Your task to perform on an android device: Open ESPN.com Image 0: 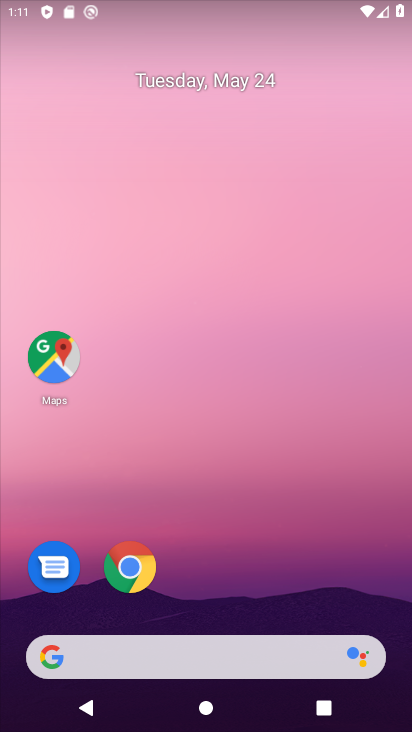
Step 0: click (134, 559)
Your task to perform on an android device: Open ESPN.com Image 1: 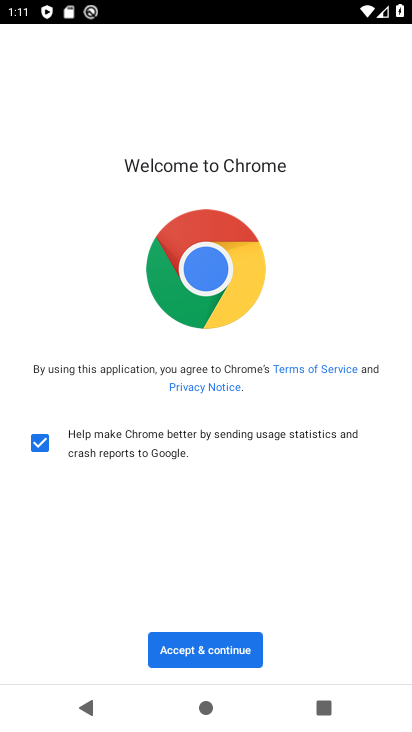
Step 1: click (230, 644)
Your task to perform on an android device: Open ESPN.com Image 2: 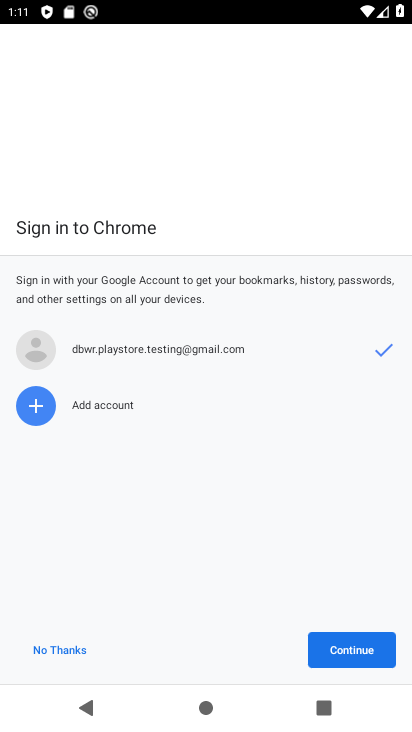
Step 2: click (345, 651)
Your task to perform on an android device: Open ESPN.com Image 3: 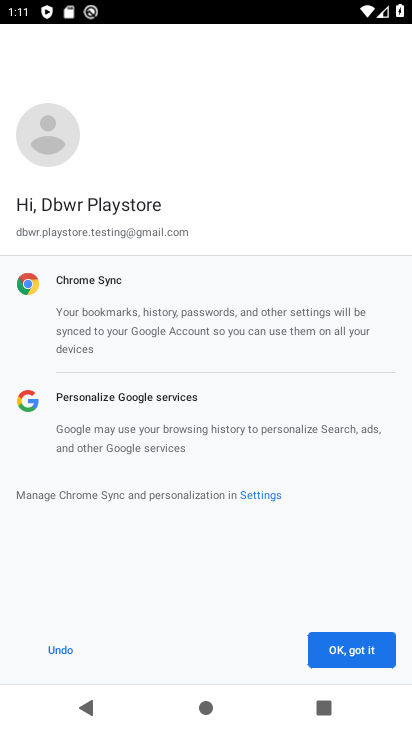
Step 3: click (385, 657)
Your task to perform on an android device: Open ESPN.com Image 4: 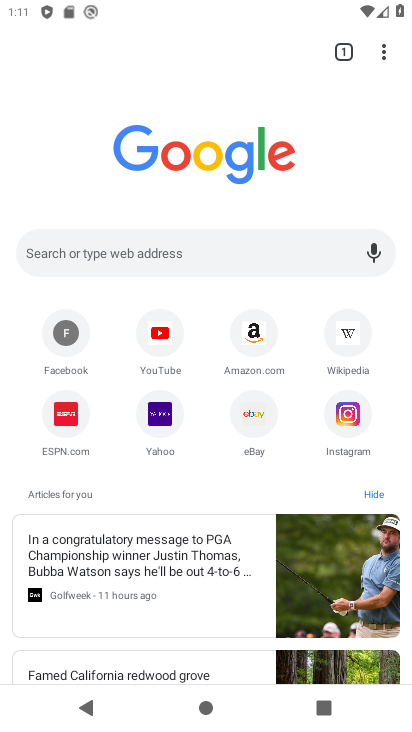
Step 4: click (78, 426)
Your task to perform on an android device: Open ESPN.com Image 5: 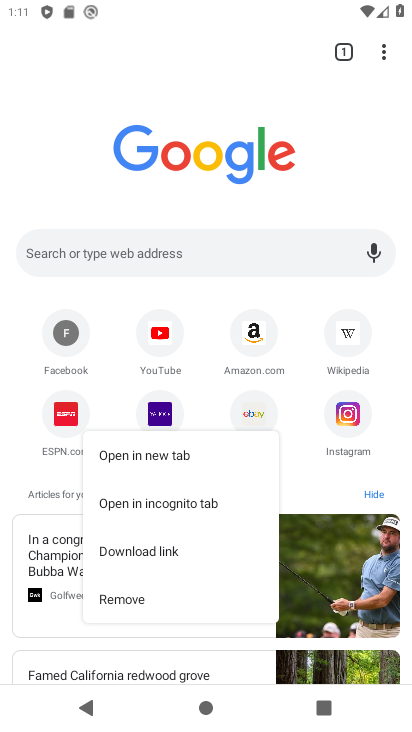
Step 5: click (78, 421)
Your task to perform on an android device: Open ESPN.com Image 6: 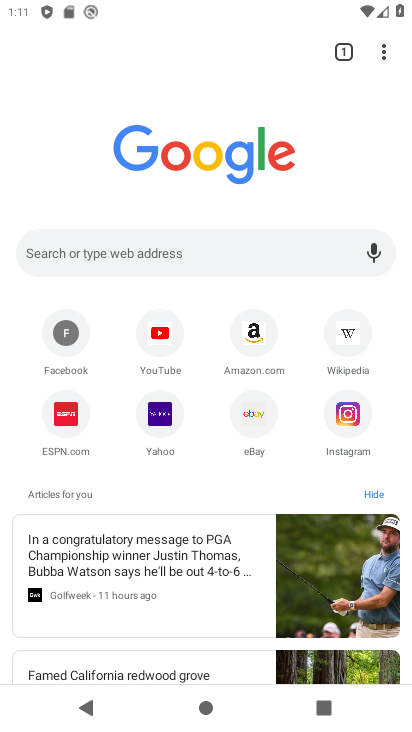
Step 6: click (68, 426)
Your task to perform on an android device: Open ESPN.com Image 7: 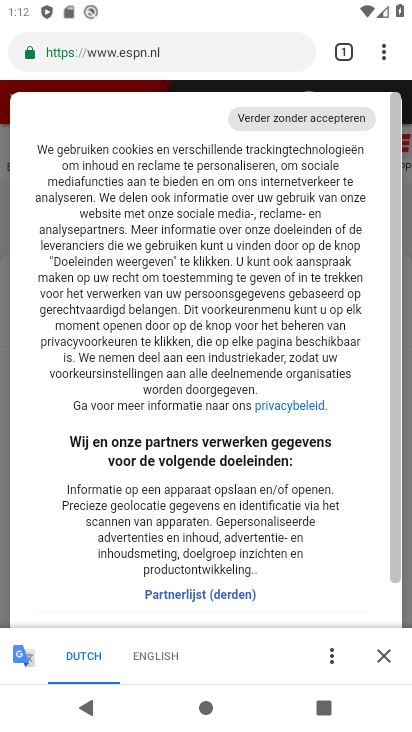
Step 7: click (155, 654)
Your task to perform on an android device: Open ESPN.com Image 8: 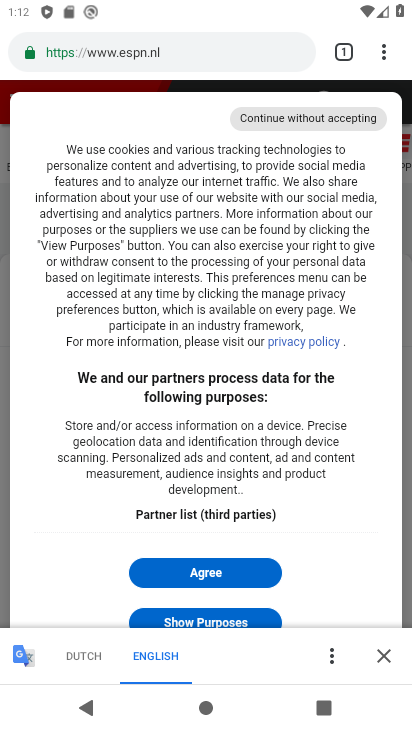
Step 8: drag from (190, 615) to (251, 419)
Your task to perform on an android device: Open ESPN.com Image 9: 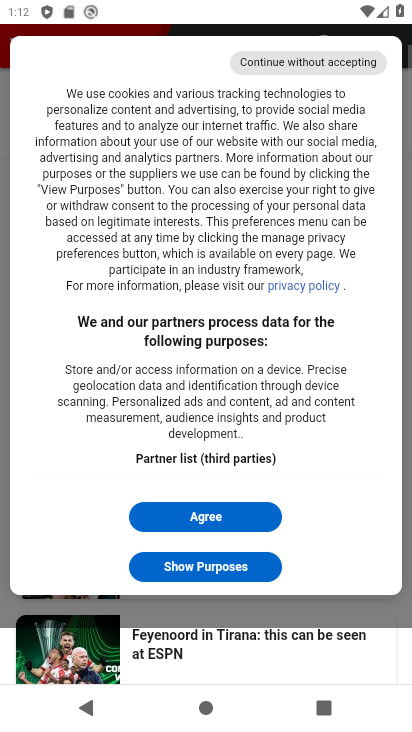
Step 9: click (225, 517)
Your task to perform on an android device: Open ESPN.com Image 10: 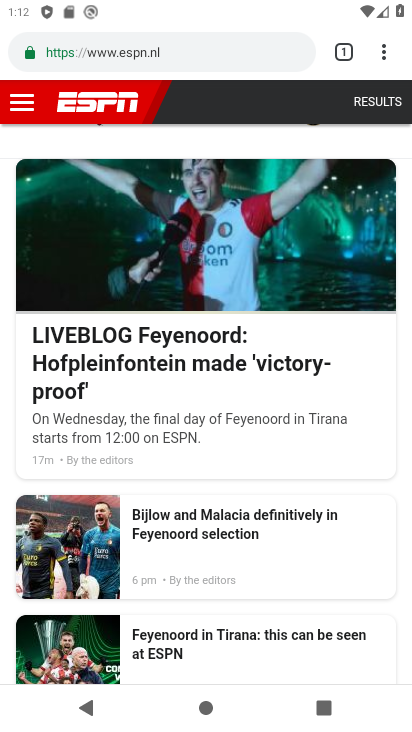
Step 10: task complete